Your task to perform on an android device: uninstall "Google Photos" Image 0: 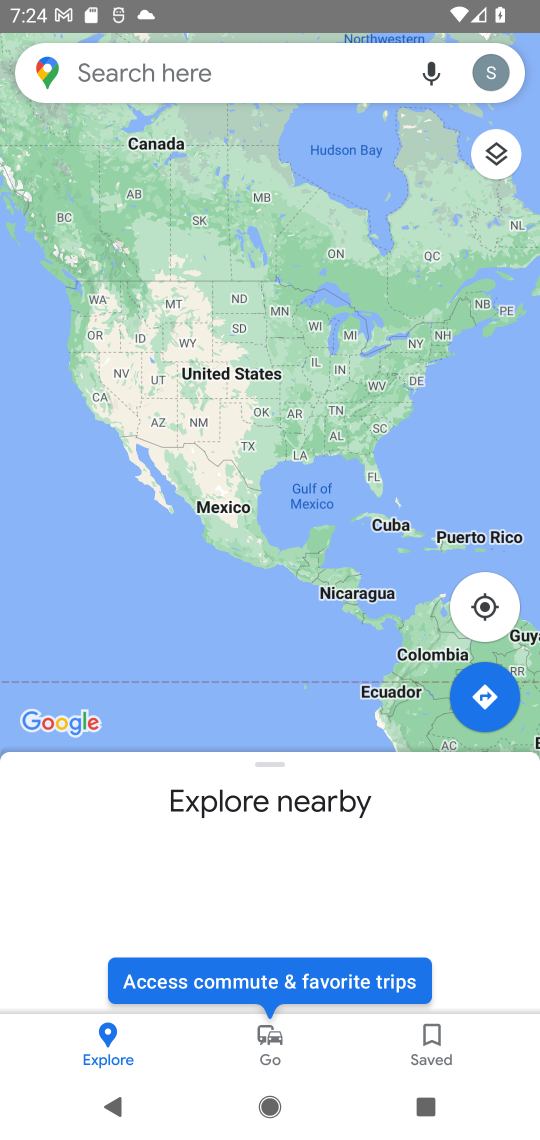
Step 0: press home button
Your task to perform on an android device: uninstall "Google Photos" Image 1: 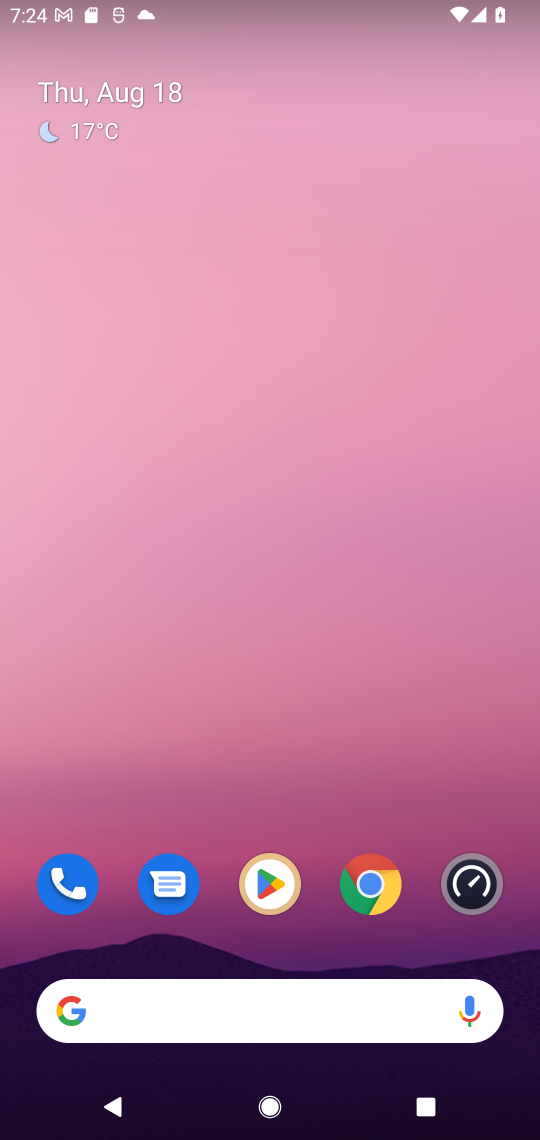
Step 1: drag from (281, 1022) to (341, 109)
Your task to perform on an android device: uninstall "Google Photos" Image 2: 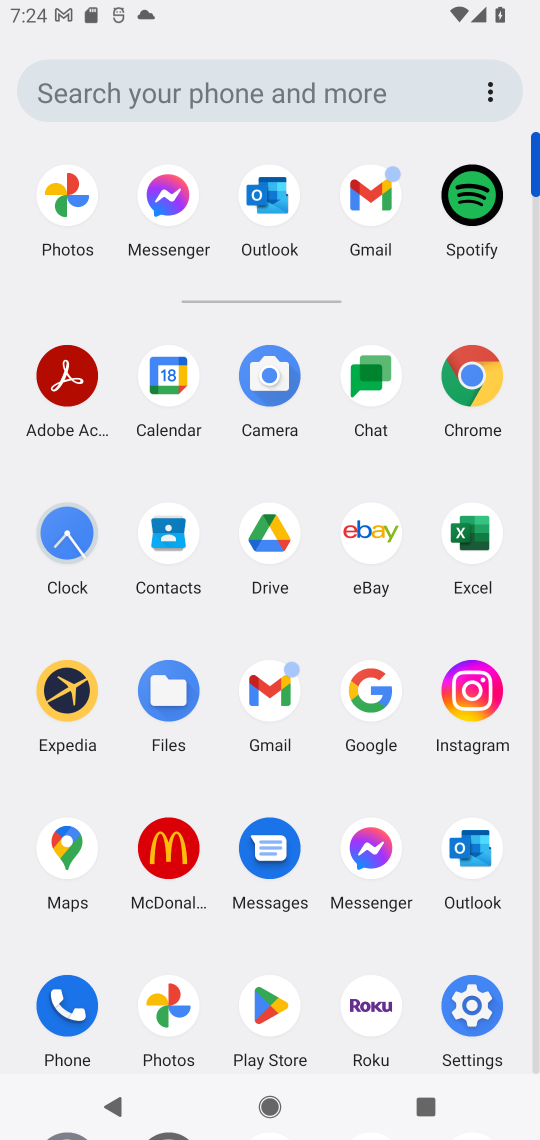
Step 2: click (281, 1000)
Your task to perform on an android device: uninstall "Google Photos" Image 3: 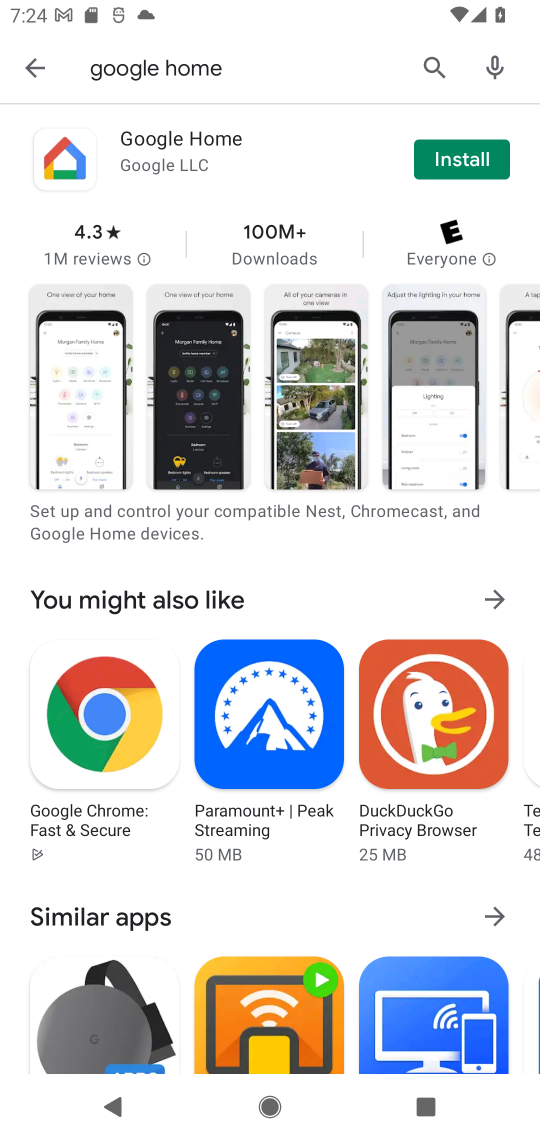
Step 3: press back button
Your task to perform on an android device: uninstall "Google Photos" Image 4: 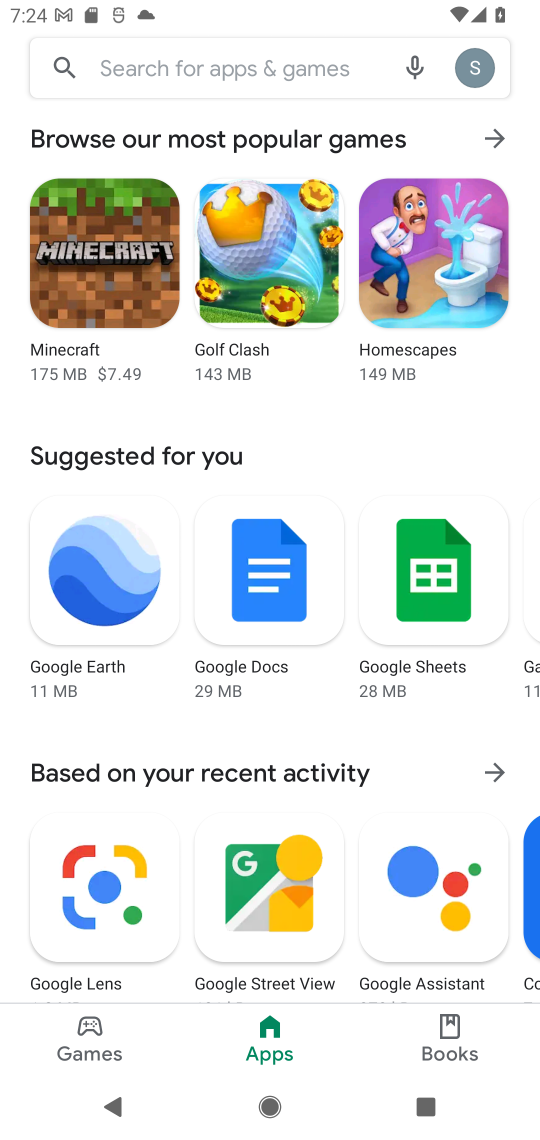
Step 4: click (224, 68)
Your task to perform on an android device: uninstall "Google Photos" Image 5: 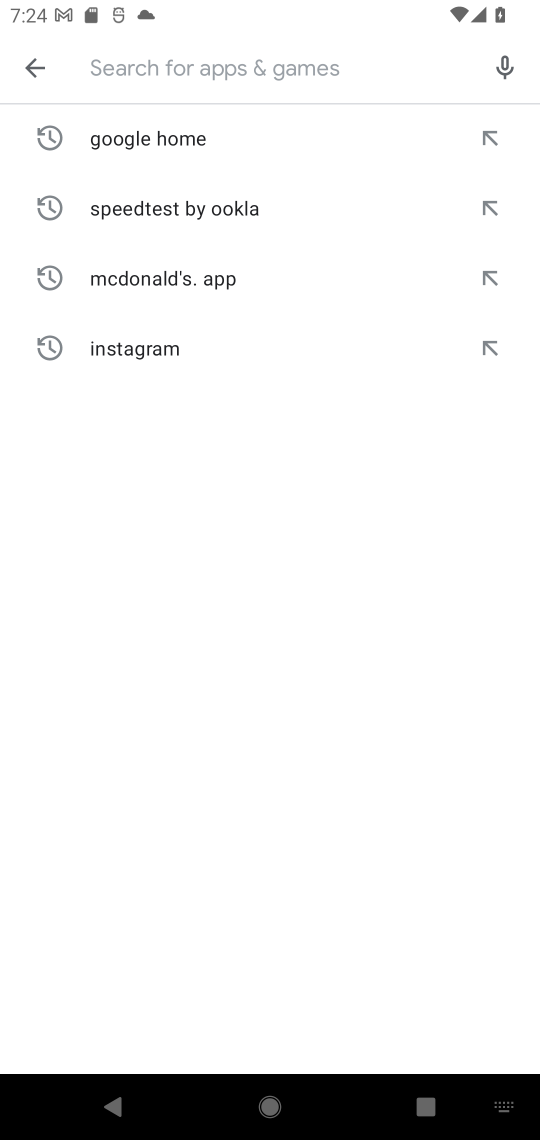
Step 5: type "Google Photos"
Your task to perform on an android device: uninstall "Google Photos" Image 6: 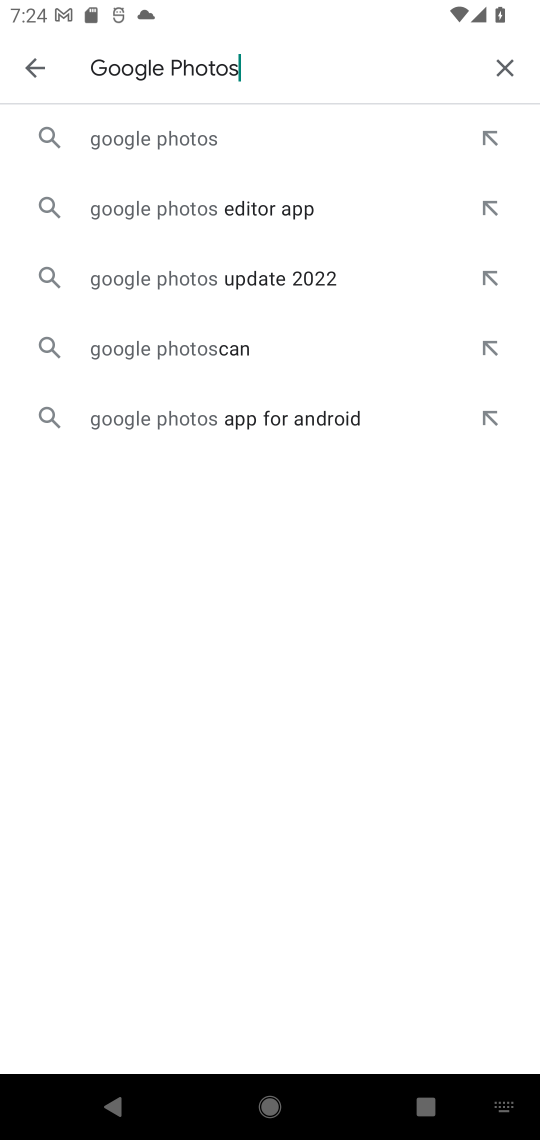
Step 6: click (195, 139)
Your task to perform on an android device: uninstall "Google Photos" Image 7: 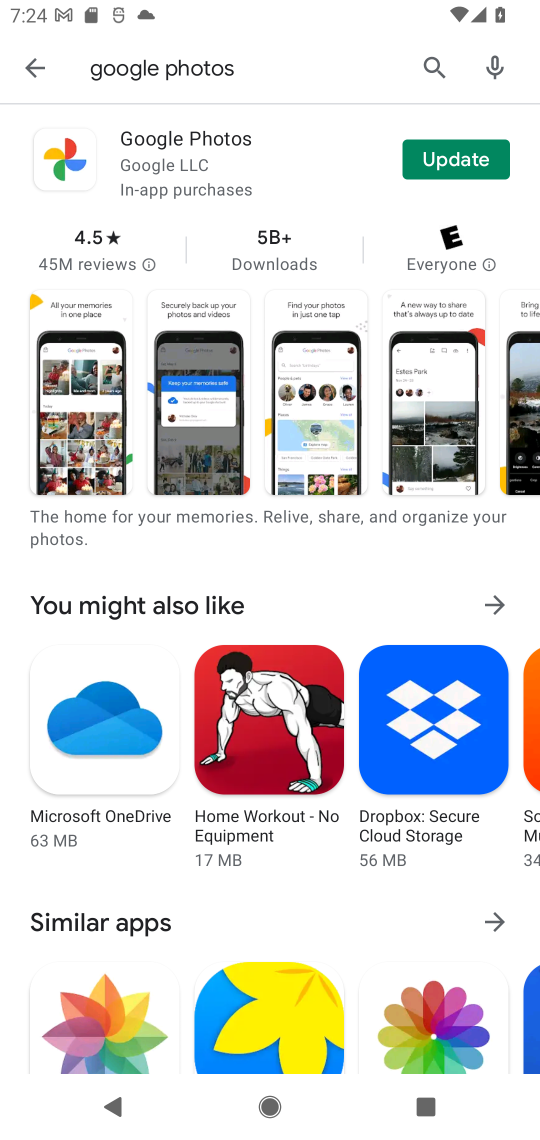
Step 7: click (459, 157)
Your task to perform on an android device: uninstall "Google Photos" Image 8: 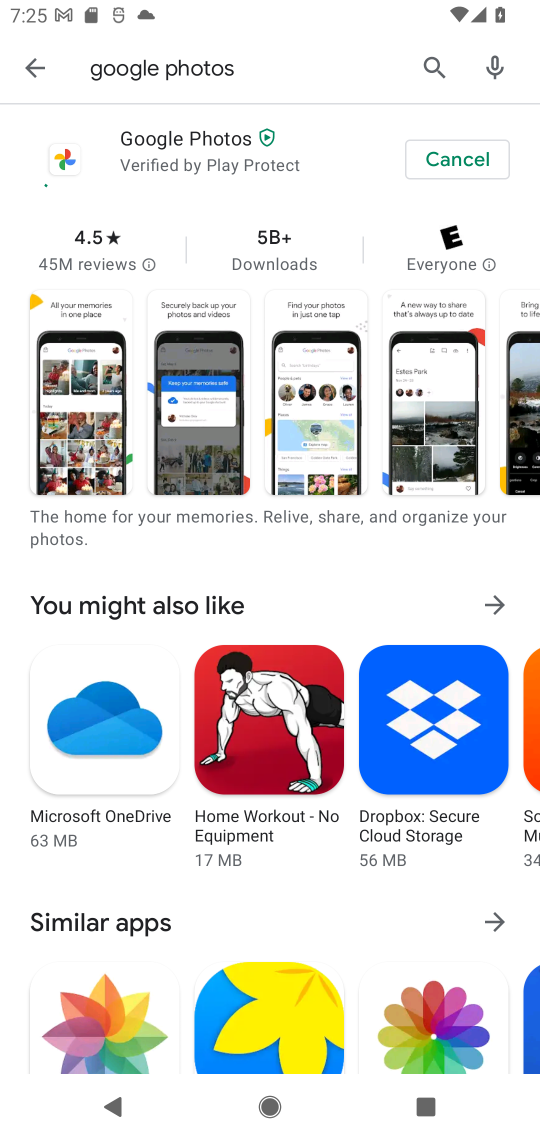
Step 8: click (208, 152)
Your task to perform on an android device: uninstall "Google Photos" Image 9: 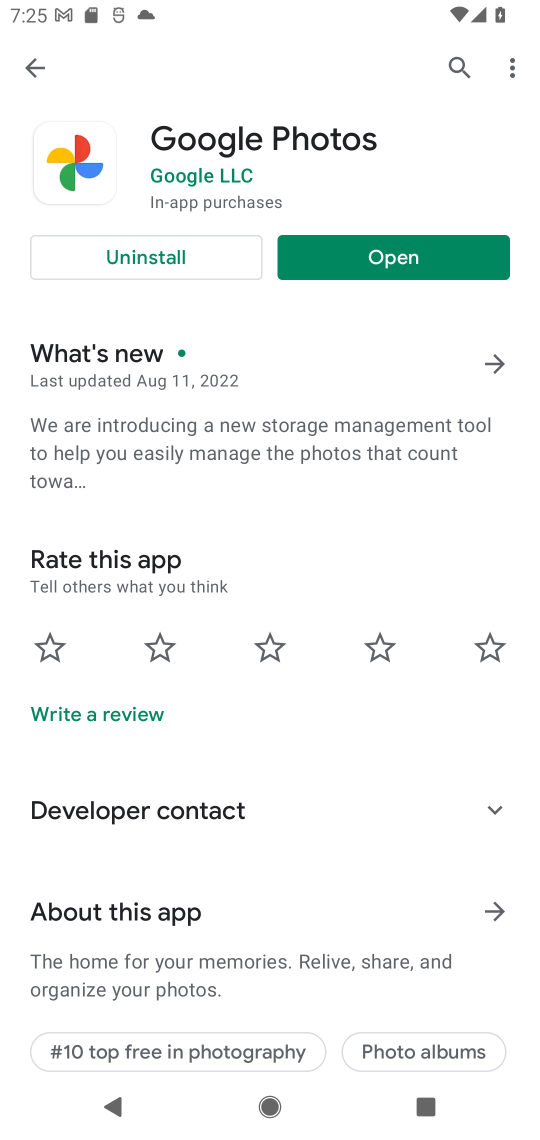
Step 9: click (158, 259)
Your task to perform on an android device: uninstall "Google Photos" Image 10: 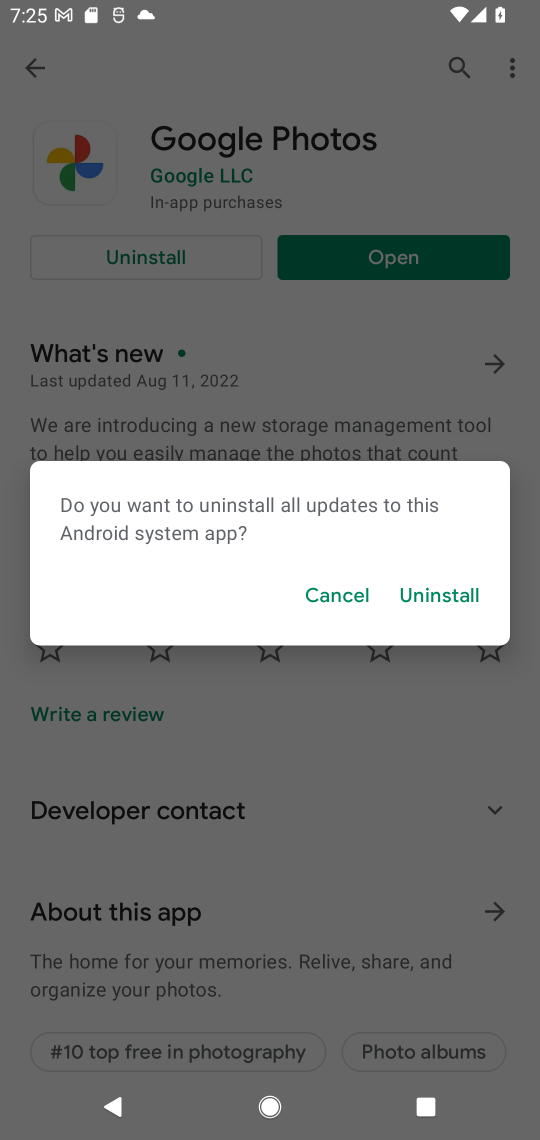
Step 10: click (440, 602)
Your task to perform on an android device: uninstall "Google Photos" Image 11: 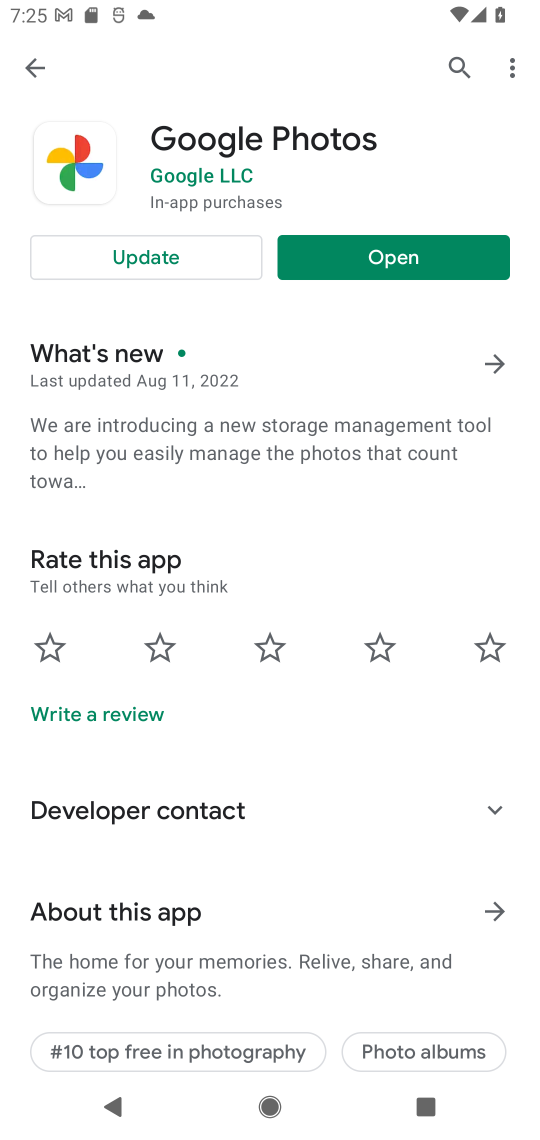
Step 11: task complete